Your task to perform on an android device: visit the assistant section in the google photos Image 0: 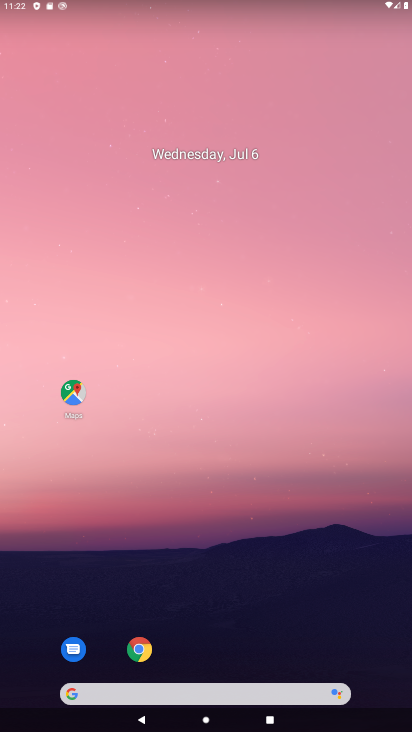
Step 0: drag from (38, 710) to (406, 3)
Your task to perform on an android device: visit the assistant section in the google photos Image 1: 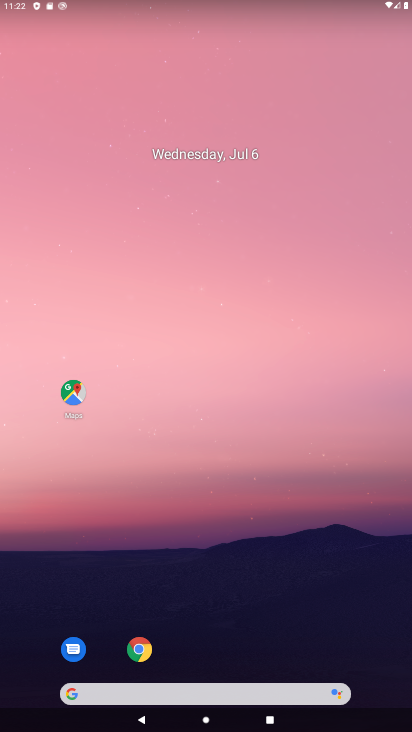
Step 1: drag from (8, 704) to (296, 17)
Your task to perform on an android device: visit the assistant section in the google photos Image 2: 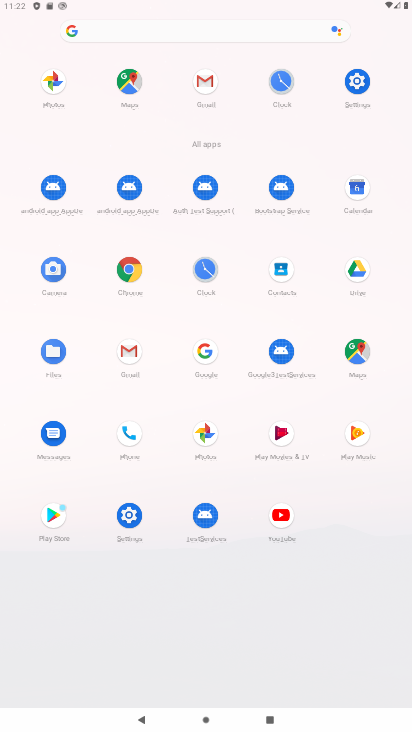
Step 2: click (211, 433)
Your task to perform on an android device: visit the assistant section in the google photos Image 3: 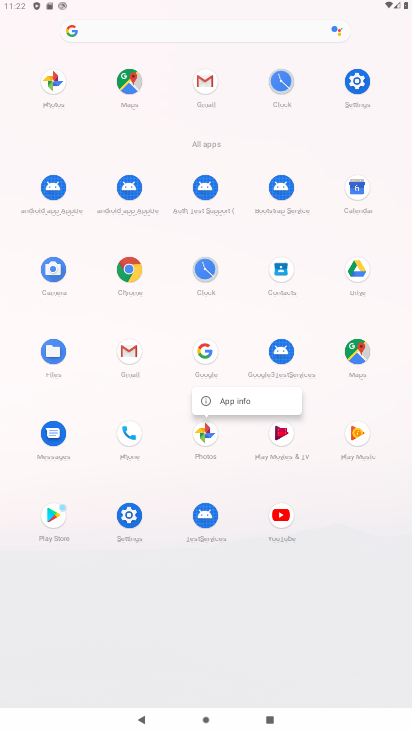
Step 3: click (211, 439)
Your task to perform on an android device: visit the assistant section in the google photos Image 4: 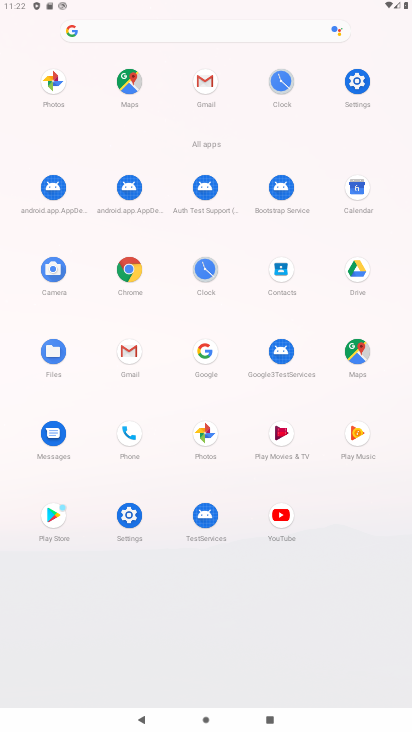
Step 4: click (204, 433)
Your task to perform on an android device: visit the assistant section in the google photos Image 5: 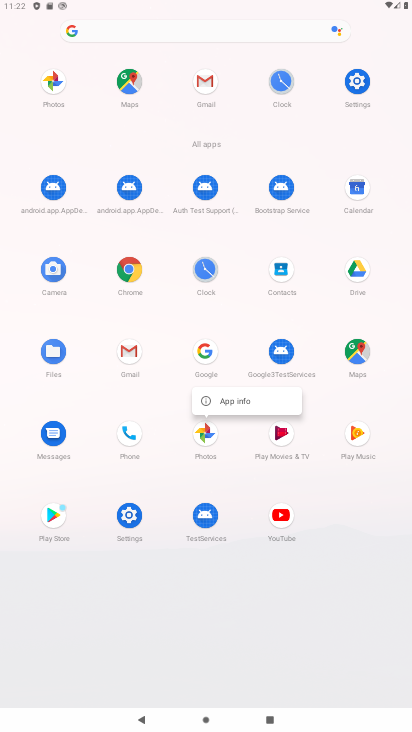
Step 5: click (204, 433)
Your task to perform on an android device: visit the assistant section in the google photos Image 6: 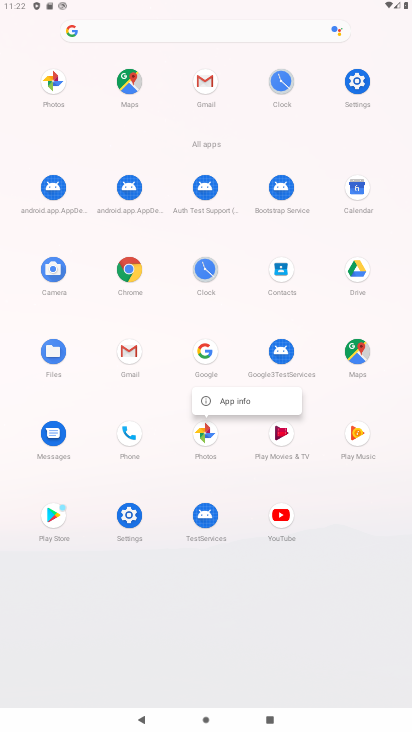
Step 6: click (200, 436)
Your task to perform on an android device: visit the assistant section in the google photos Image 7: 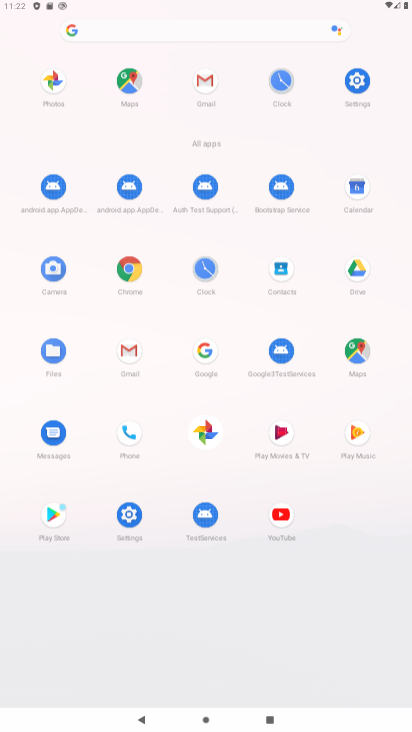
Step 7: click (203, 444)
Your task to perform on an android device: visit the assistant section in the google photos Image 8: 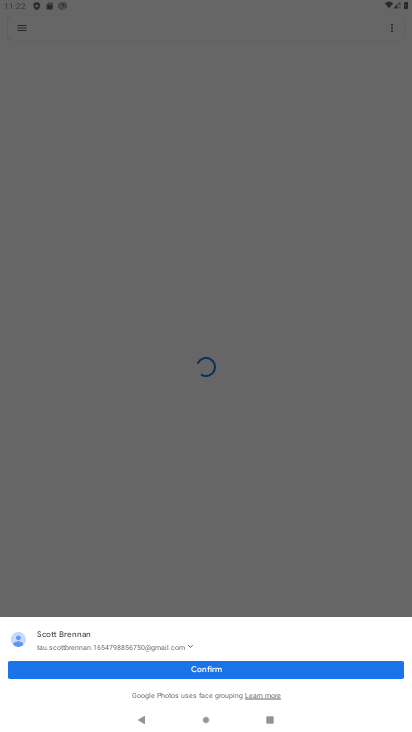
Step 8: click (240, 693)
Your task to perform on an android device: visit the assistant section in the google photos Image 9: 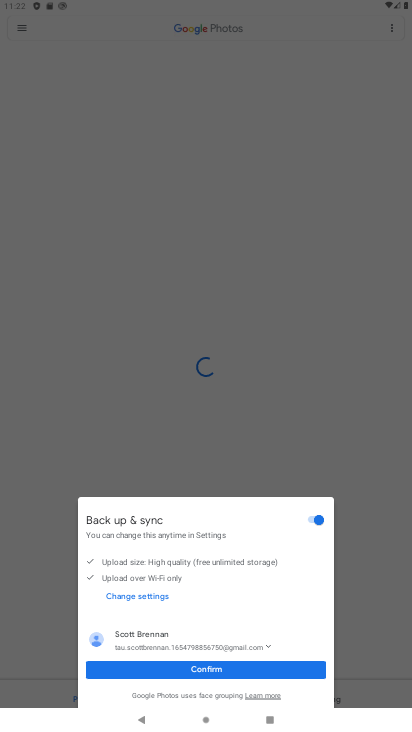
Step 9: click (217, 669)
Your task to perform on an android device: visit the assistant section in the google photos Image 10: 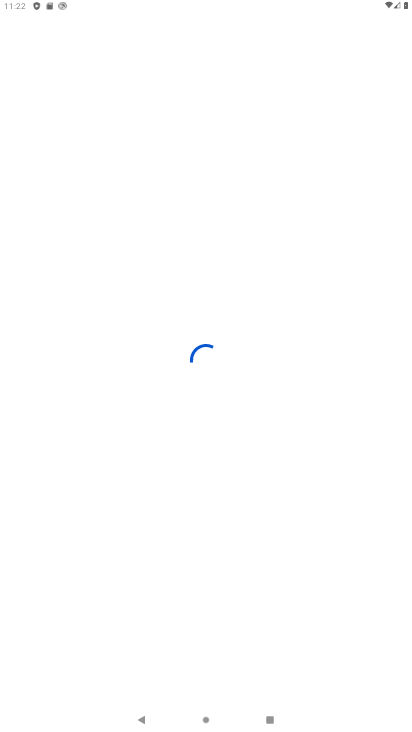
Step 10: click (248, 691)
Your task to perform on an android device: visit the assistant section in the google photos Image 11: 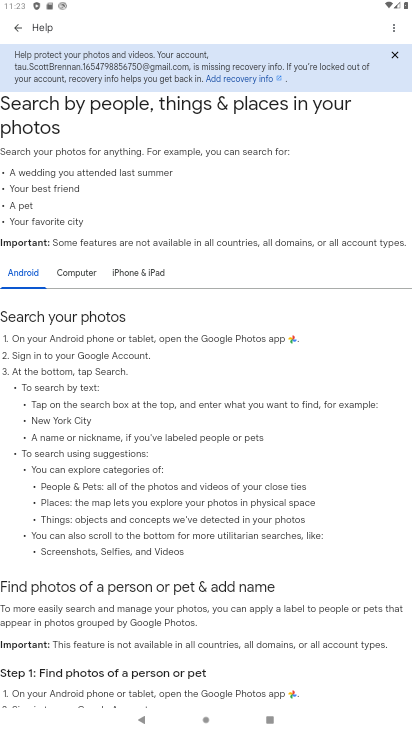
Step 11: click (19, 28)
Your task to perform on an android device: visit the assistant section in the google photos Image 12: 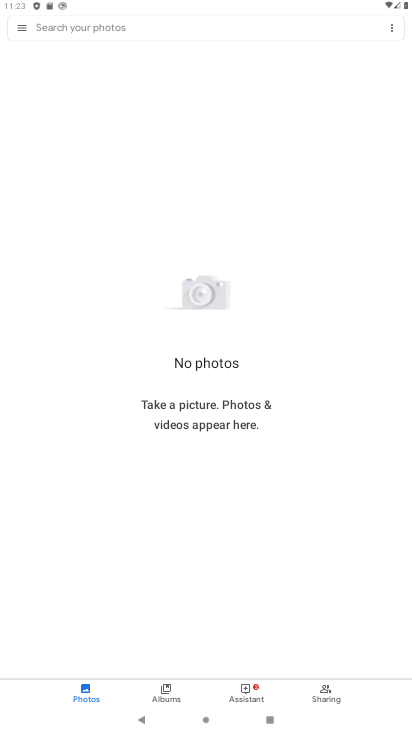
Step 12: click (244, 695)
Your task to perform on an android device: visit the assistant section in the google photos Image 13: 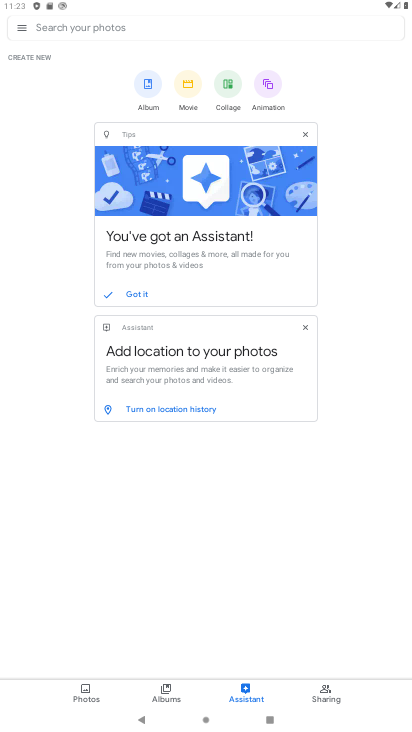
Step 13: task complete